Your task to perform on an android device: Go to settings Image 0: 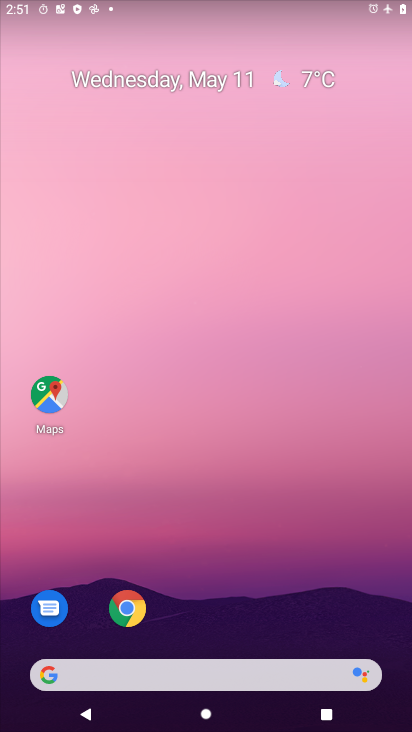
Step 0: drag from (206, 202) to (229, 112)
Your task to perform on an android device: Go to settings Image 1: 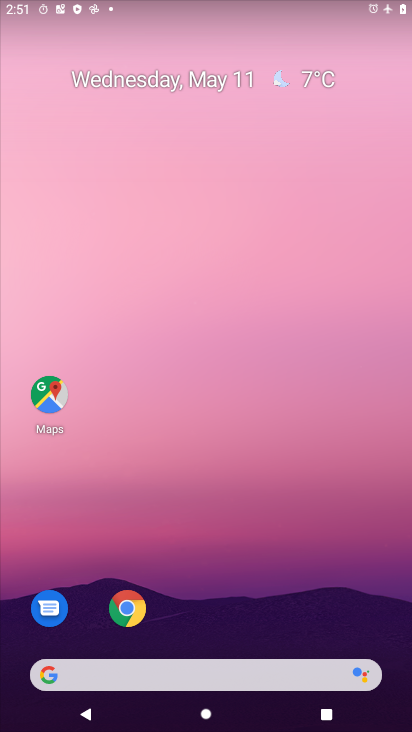
Step 1: drag from (215, 595) to (253, 146)
Your task to perform on an android device: Go to settings Image 2: 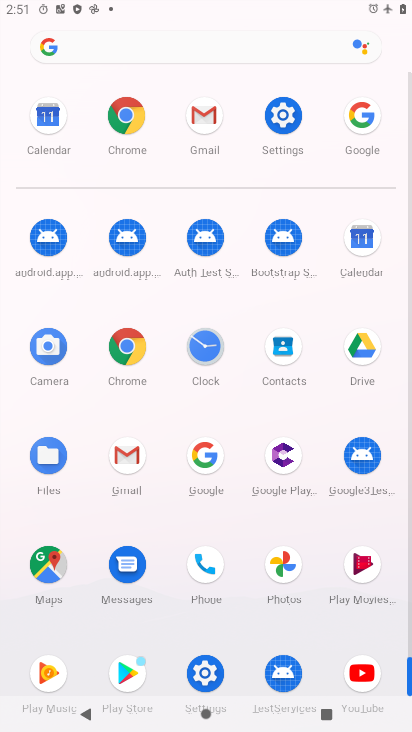
Step 2: click (288, 100)
Your task to perform on an android device: Go to settings Image 3: 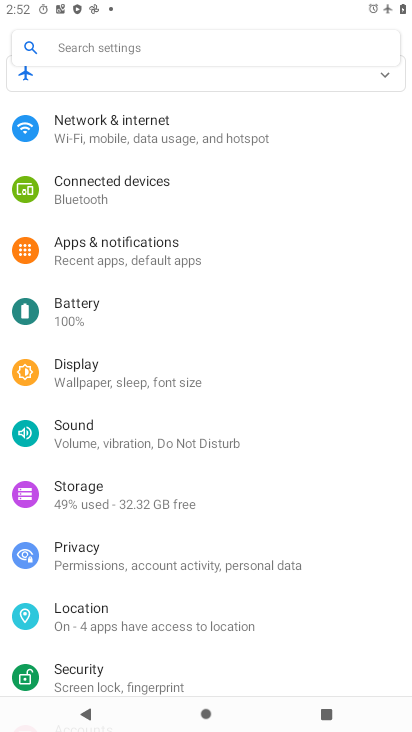
Step 3: task complete